Your task to perform on an android device: add a contact in the contacts app Image 0: 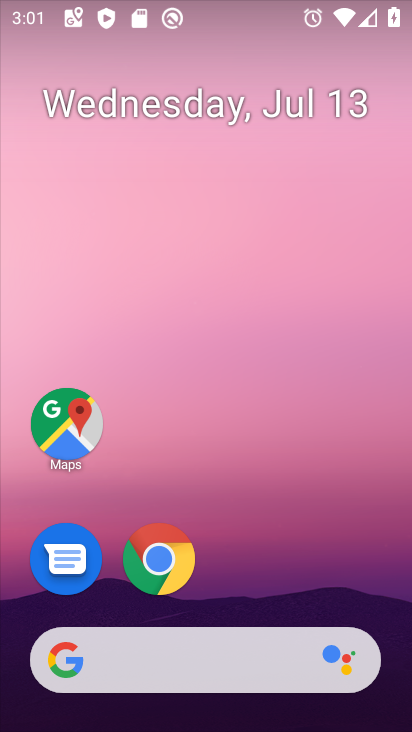
Step 0: drag from (335, 583) to (326, 277)
Your task to perform on an android device: add a contact in the contacts app Image 1: 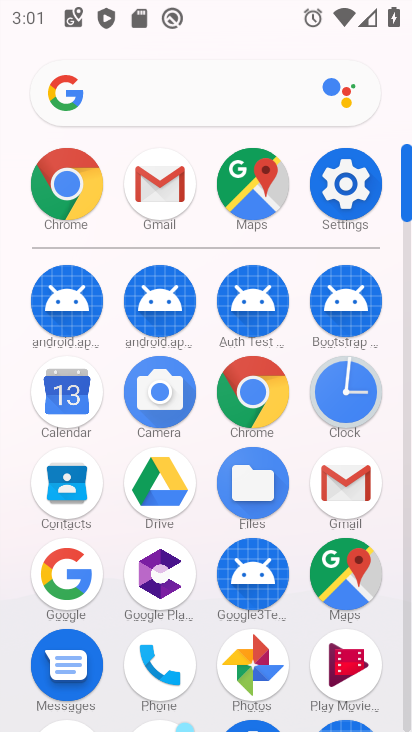
Step 1: click (68, 491)
Your task to perform on an android device: add a contact in the contacts app Image 2: 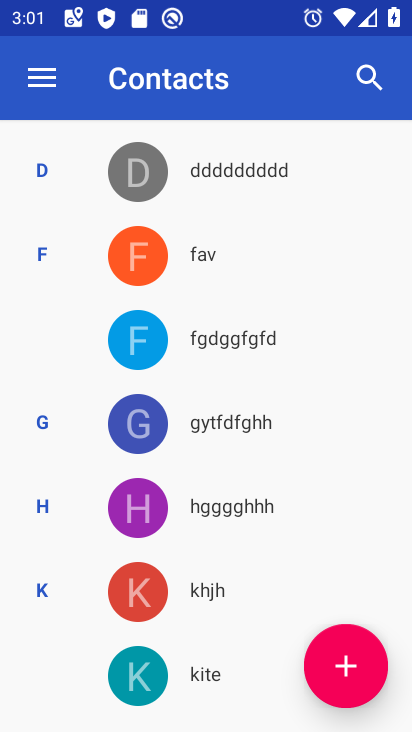
Step 2: click (360, 671)
Your task to perform on an android device: add a contact in the contacts app Image 3: 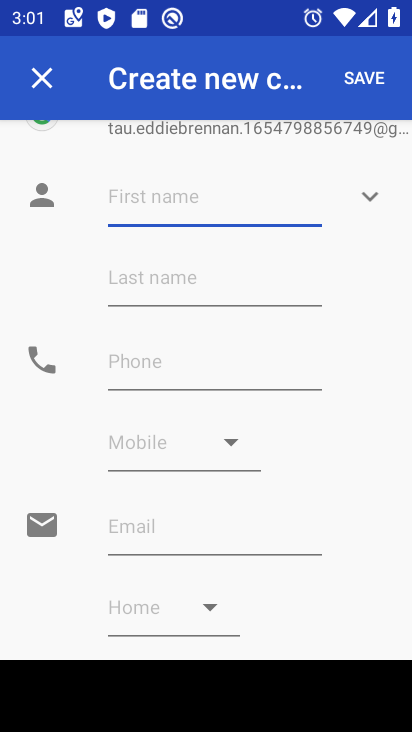
Step 3: type "md"
Your task to perform on an android device: add a contact in the contacts app Image 4: 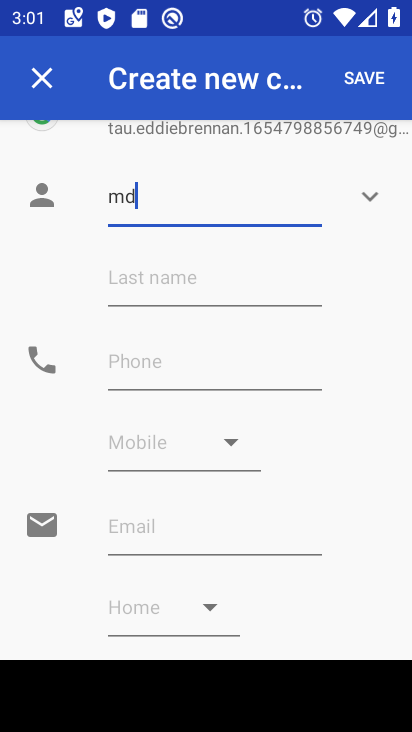
Step 4: click (214, 361)
Your task to perform on an android device: add a contact in the contacts app Image 5: 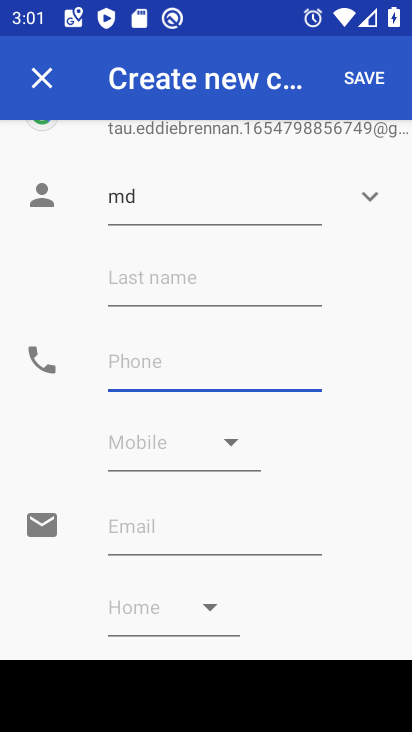
Step 5: type "123344566"
Your task to perform on an android device: add a contact in the contacts app Image 6: 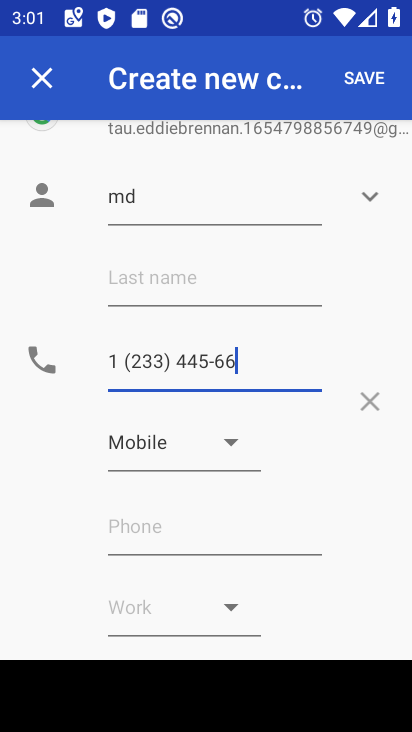
Step 6: click (367, 72)
Your task to perform on an android device: add a contact in the contacts app Image 7: 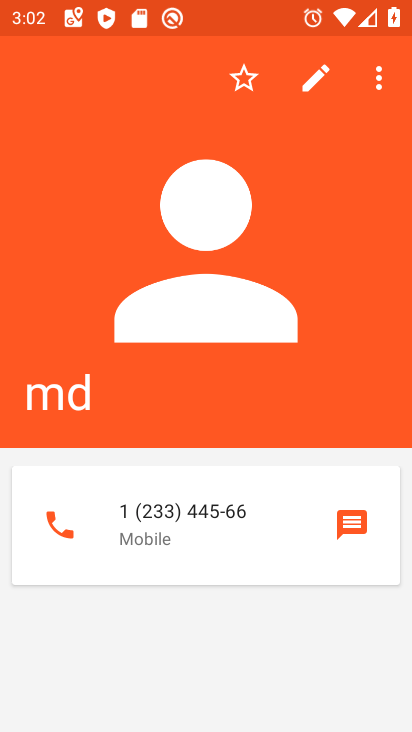
Step 7: task complete